Your task to perform on an android device: open device folders in google photos Image 0: 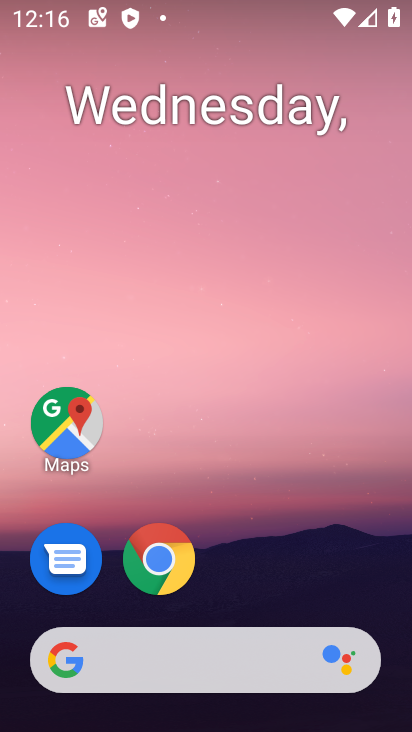
Step 0: drag from (245, 533) to (245, 120)
Your task to perform on an android device: open device folders in google photos Image 1: 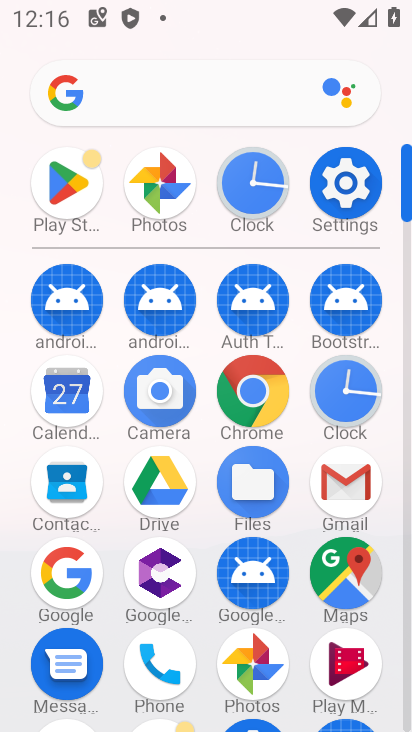
Step 1: click (164, 196)
Your task to perform on an android device: open device folders in google photos Image 2: 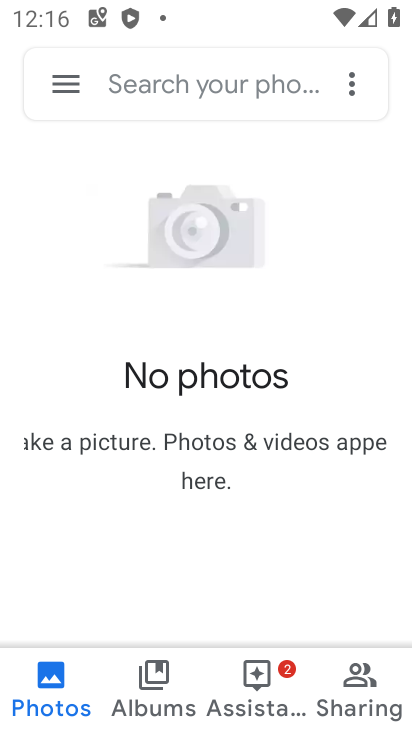
Step 2: click (71, 86)
Your task to perform on an android device: open device folders in google photos Image 3: 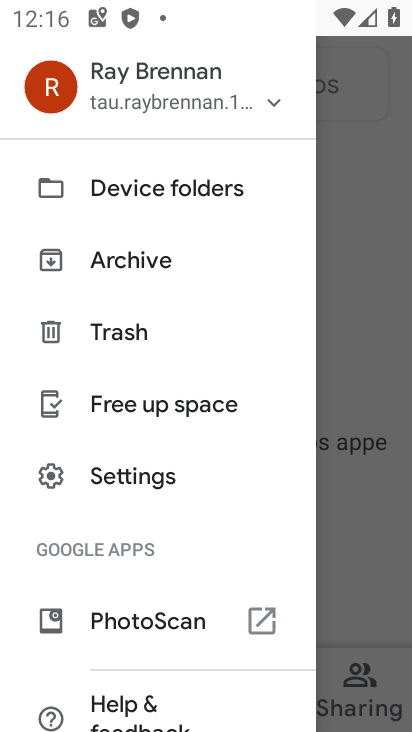
Step 3: click (168, 187)
Your task to perform on an android device: open device folders in google photos Image 4: 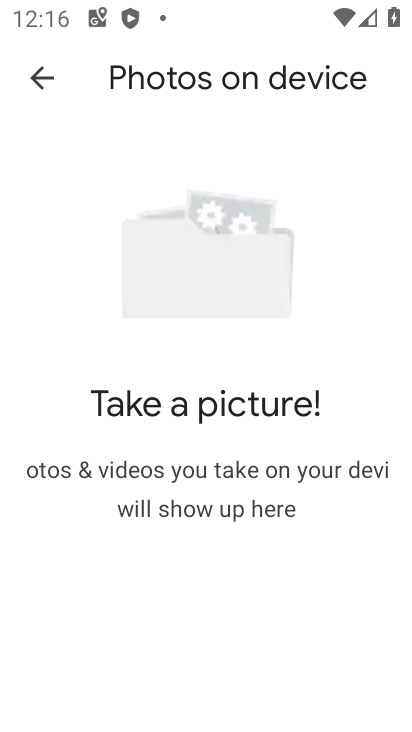
Step 4: task complete